Your task to perform on an android device: Search for seafood restaurants on Google Maps Image 0: 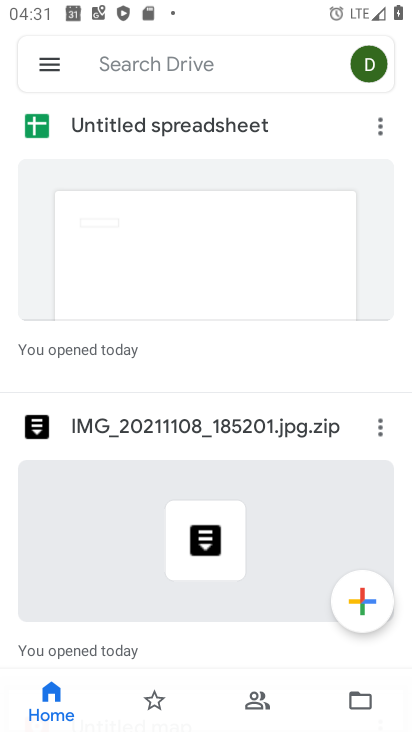
Step 0: press home button
Your task to perform on an android device: Search for seafood restaurants on Google Maps Image 1: 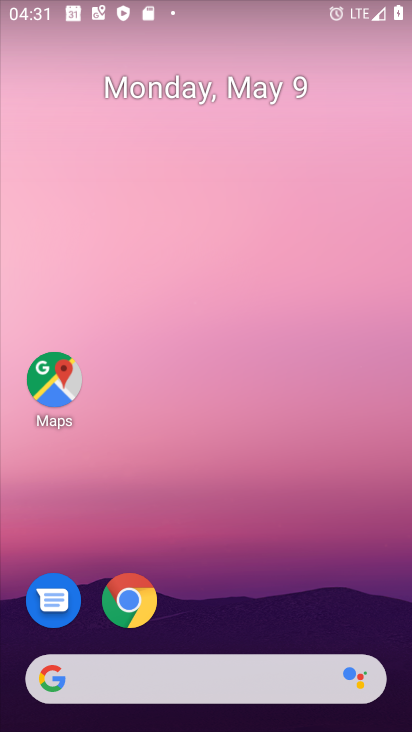
Step 1: drag from (312, 652) to (270, 7)
Your task to perform on an android device: Search for seafood restaurants on Google Maps Image 2: 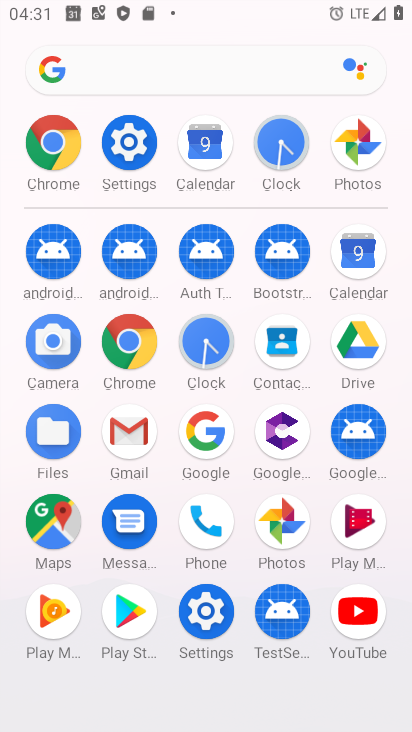
Step 2: click (47, 526)
Your task to perform on an android device: Search for seafood restaurants on Google Maps Image 3: 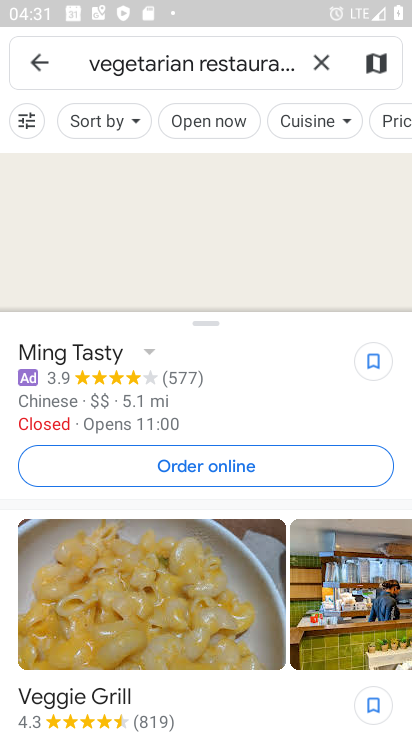
Step 3: click (332, 59)
Your task to perform on an android device: Search for seafood restaurants on Google Maps Image 4: 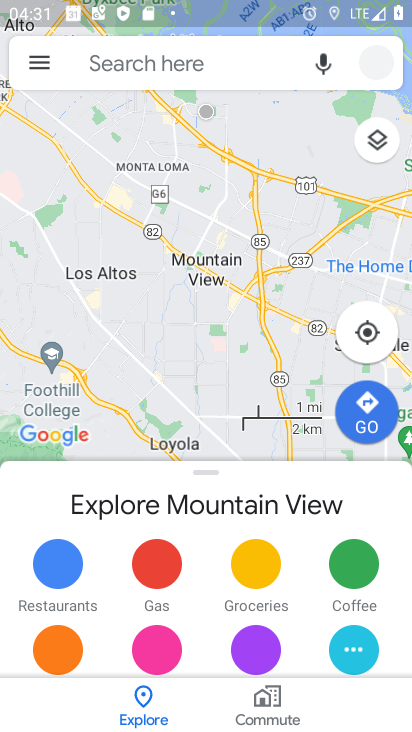
Step 4: click (244, 64)
Your task to perform on an android device: Search for seafood restaurants on Google Maps Image 5: 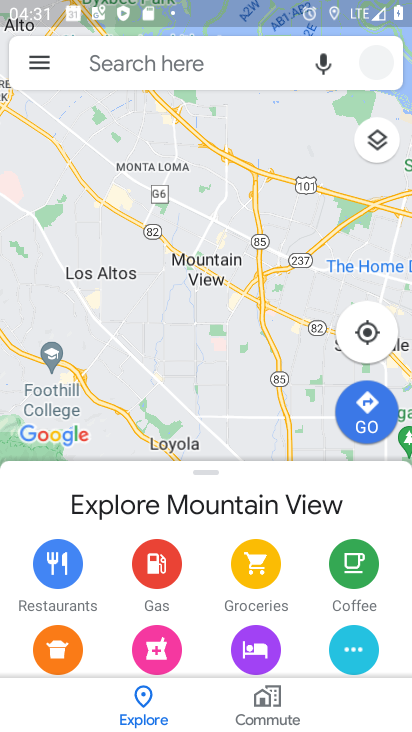
Step 5: click (191, 57)
Your task to perform on an android device: Search for seafood restaurants on Google Maps Image 6: 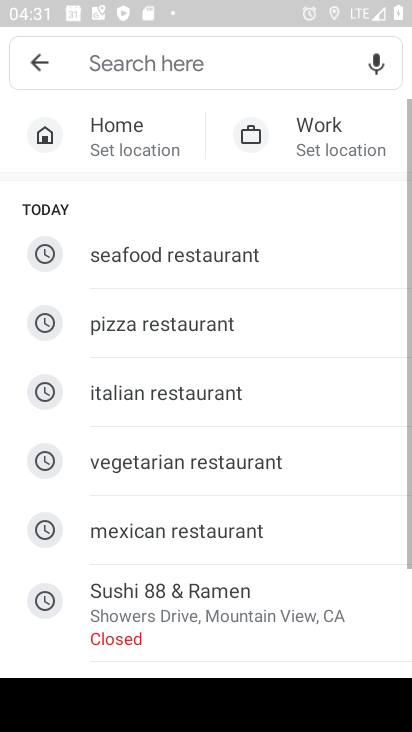
Step 6: click (204, 255)
Your task to perform on an android device: Search for seafood restaurants on Google Maps Image 7: 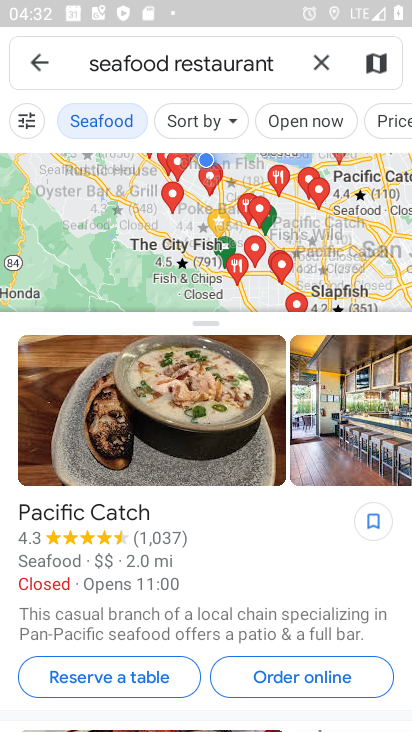
Step 7: task complete